Your task to perform on an android device: Go to calendar. Show me events next week Image 0: 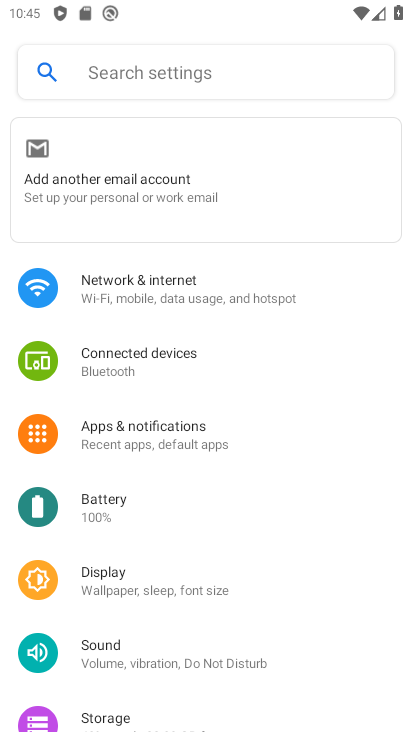
Step 0: press home button
Your task to perform on an android device: Go to calendar. Show me events next week Image 1: 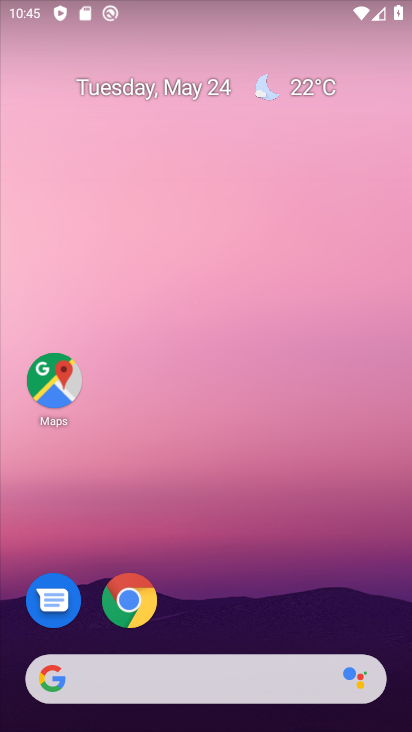
Step 1: click (187, 87)
Your task to perform on an android device: Go to calendar. Show me events next week Image 2: 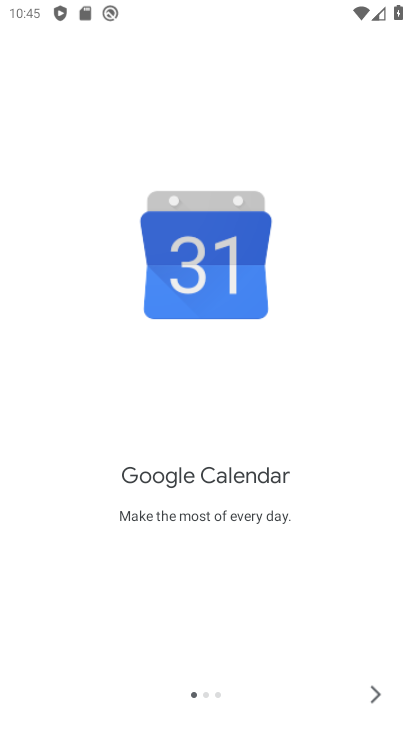
Step 2: click (345, 685)
Your task to perform on an android device: Go to calendar. Show me events next week Image 3: 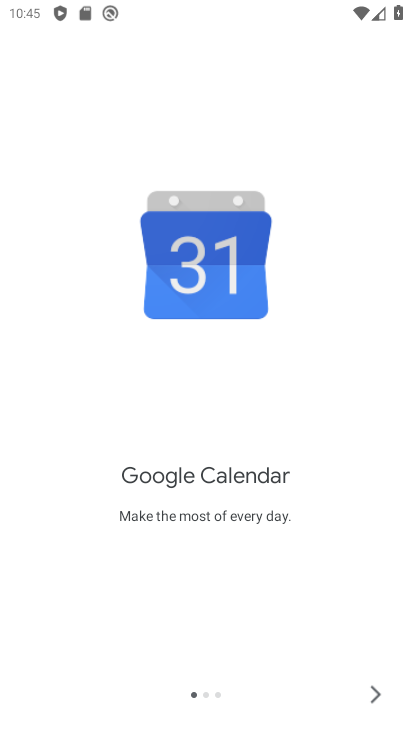
Step 3: click (369, 691)
Your task to perform on an android device: Go to calendar. Show me events next week Image 4: 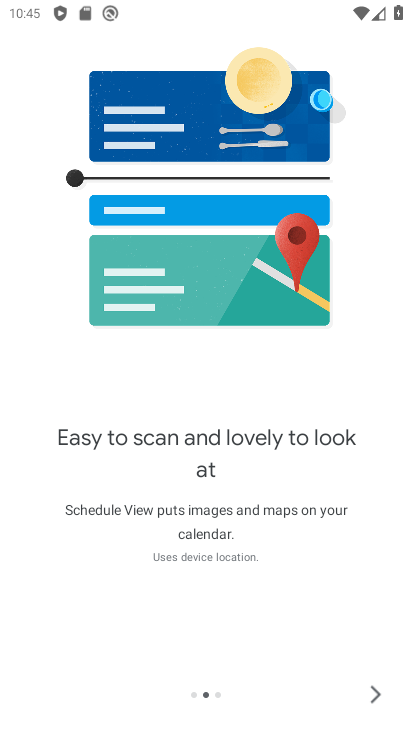
Step 4: click (369, 691)
Your task to perform on an android device: Go to calendar. Show me events next week Image 5: 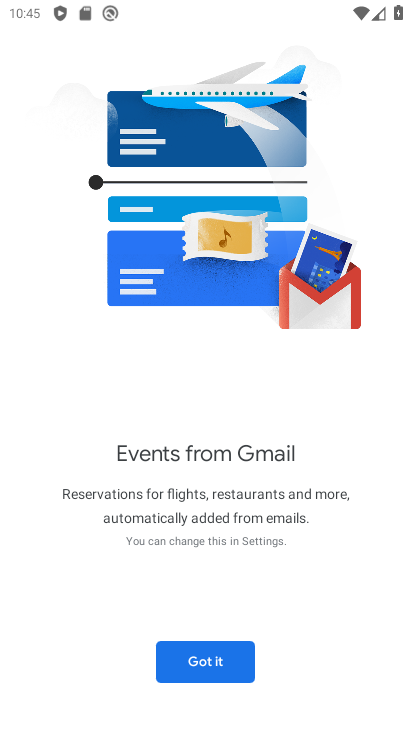
Step 5: click (199, 655)
Your task to perform on an android device: Go to calendar. Show me events next week Image 6: 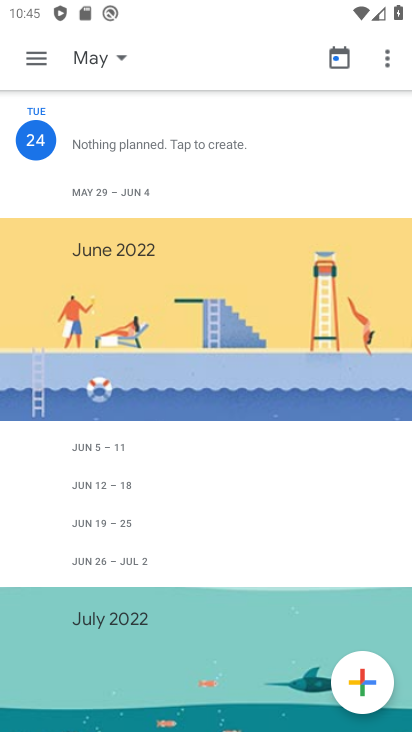
Step 6: click (38, 53)
Your task to perform on an android device: Go to calendar. Show me events next week Image 7: 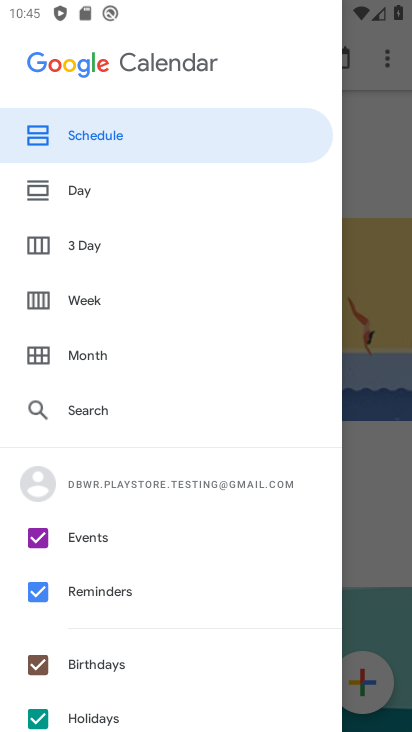
Step 7: click (83, 293)
Your task to perform on an android device: Go to calendar. Show me events next week Image 8: 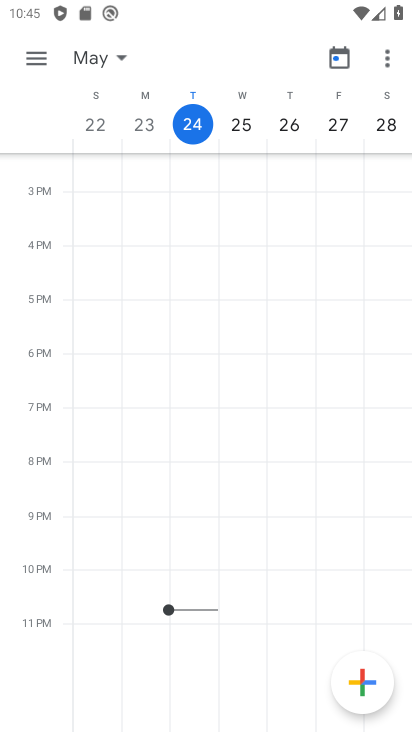
Step 8: click (29, 69)
Your task to perform on an android device: Go to calendar. Show me events next week Image 9: 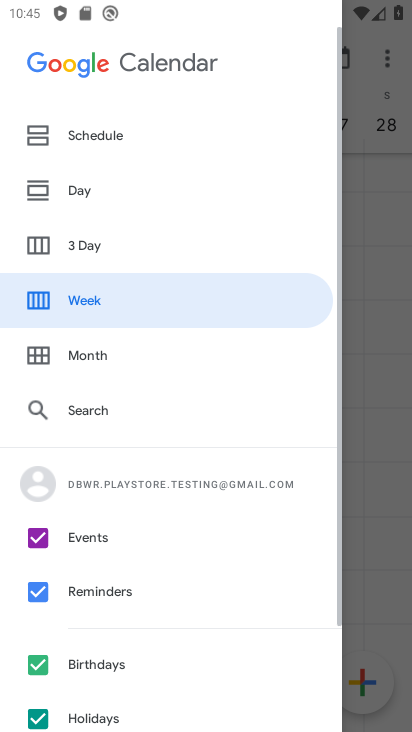
Step 9: click (41, 588)
Your task to perform on an android device: Go to calendar. Show me events next week Image 10: 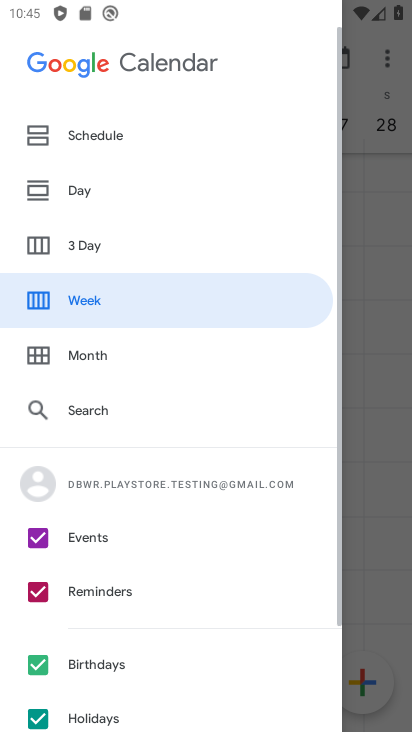
Step 10: click (32, 662)
Your task to perform on an android device: Go to calendar. Show me events next week Image 11: 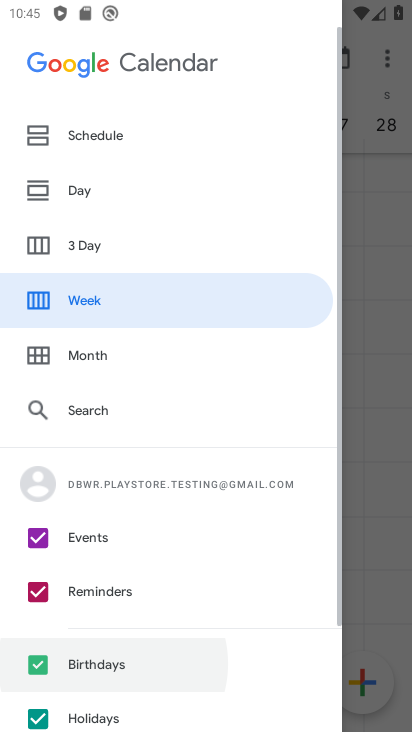
Step 11: click (36, 714)
Your task to perform on an android device: Go to calendar. Show me events next week Image 12: 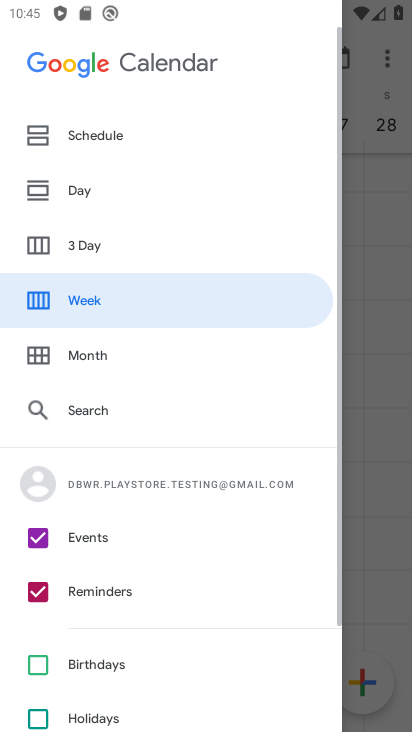
Step 12: click (392, 407)
Your task to perform on an android device: Go to calendar. Show me events next week Image 13: 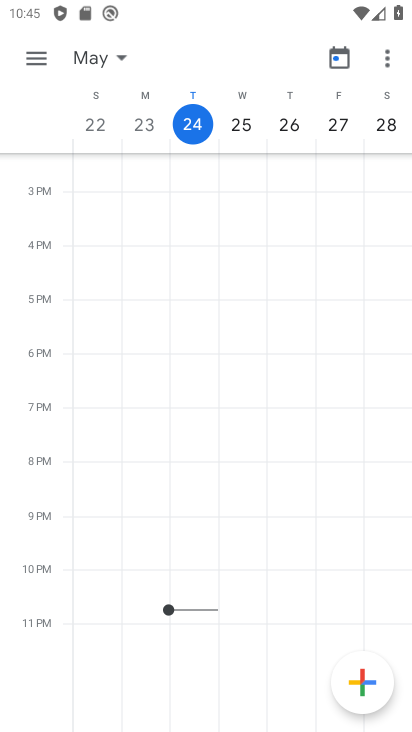
Step 13: click (383, 126)
Your task to perform on an android device: Go to calendar. Show me events next week Image 14: 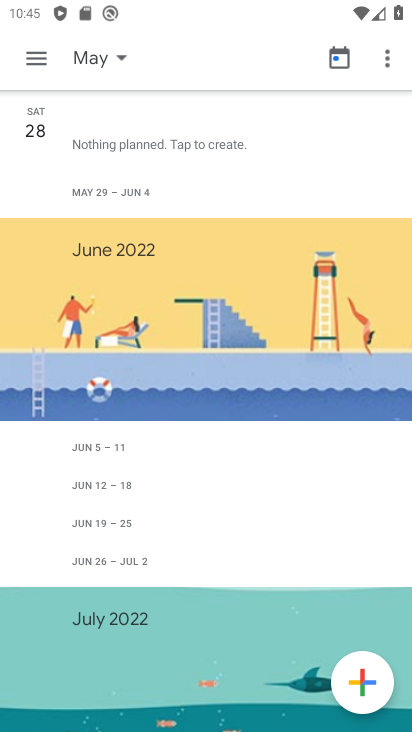
Step 14: click (101, 60)
Your task to perform on an android device: Go to calendar. Show me events next week Image 15: 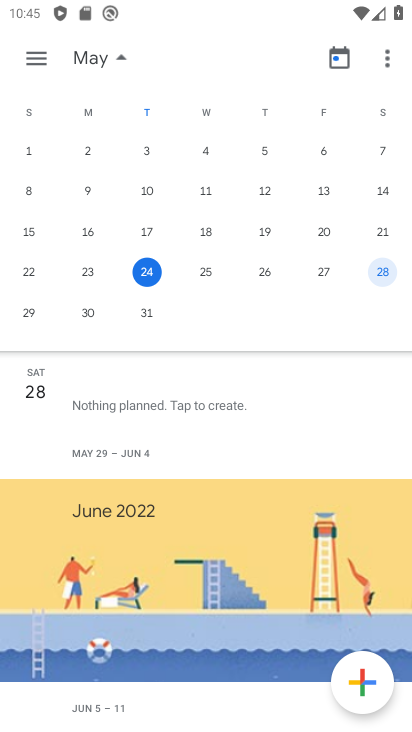
Step 15: click (88, 312)
Your task to perform on an android device: Go to calendar. Show me events next week Image 16: 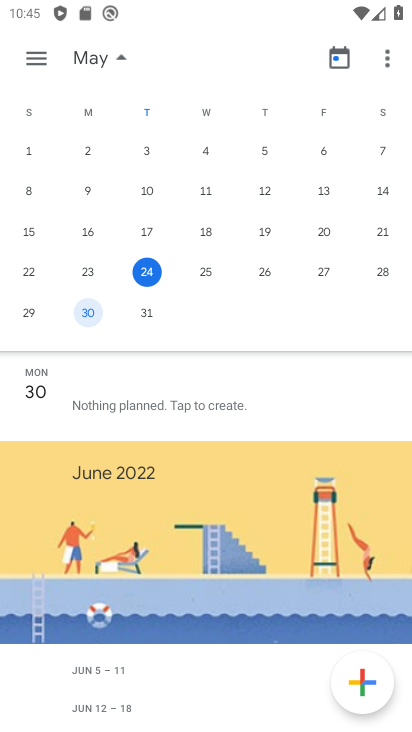
Step 16: click (42, 63)
Your task to perform on an android device: Go to calendar. Show me events next week Image 17: 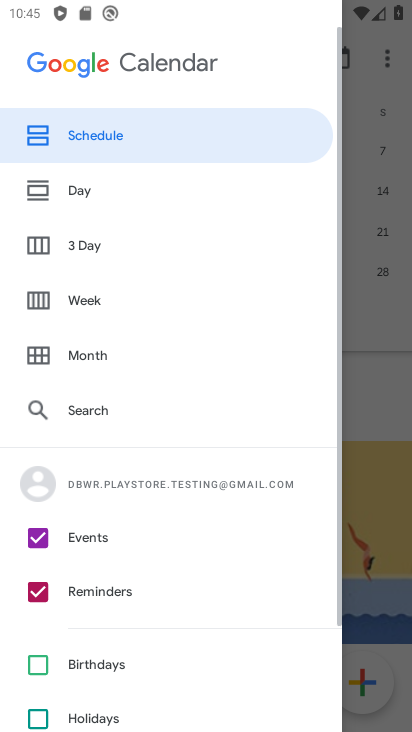
Step 17: click (121, 294)
Your task to perform on an android device: Go to calendar. Show me events next week Image 18: 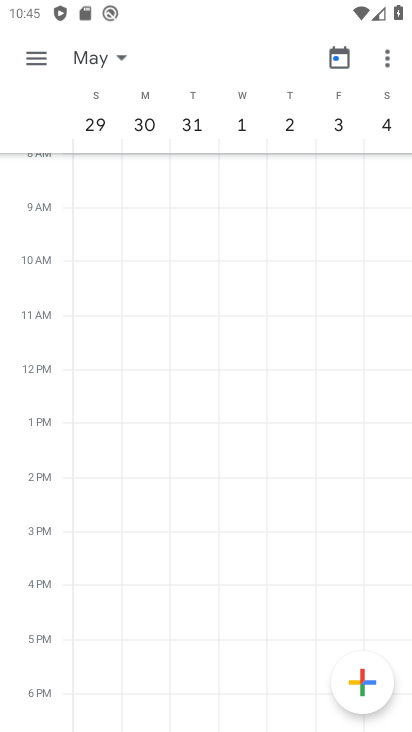
Step 18: task complete